Your task to perform on an android device: change the upload size in google photos Image 0: 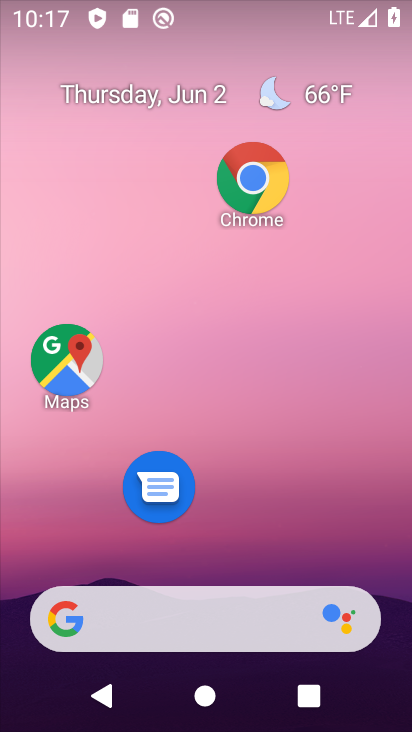
Step 0: drag from (260, 729) to (234, 171)
Your task to perform on an android device: change the upload size in google photos Image 1: 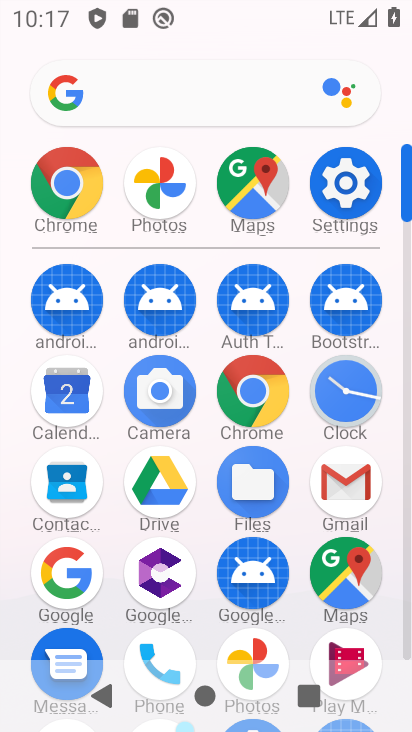
Step 1: click (267, 641)
Your task to perform on an android device: change the upload size in google photos Image 2: 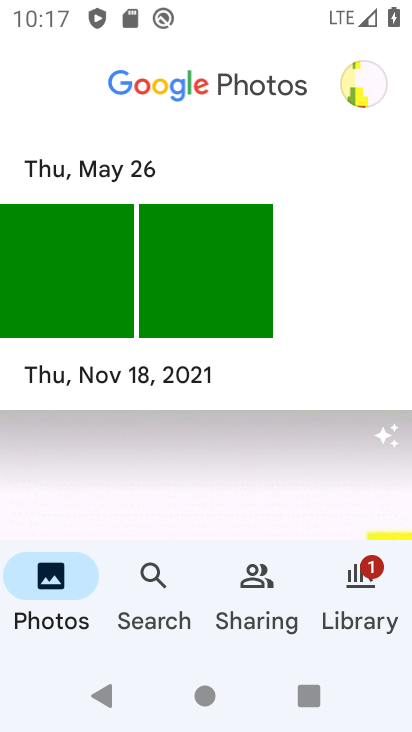
Step 2: click (357, 89)
Your task to perform on an android device: change the upload size in google photos Image 3: 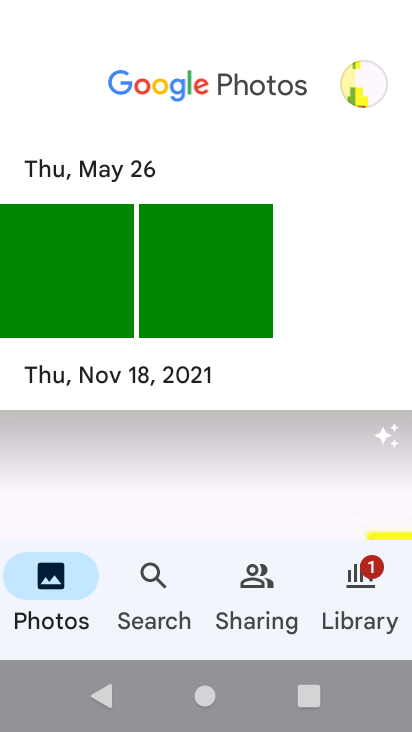
Step 3: click (360, 78)
Your task to perform on an android device: change the upload size in google photos Image 4: 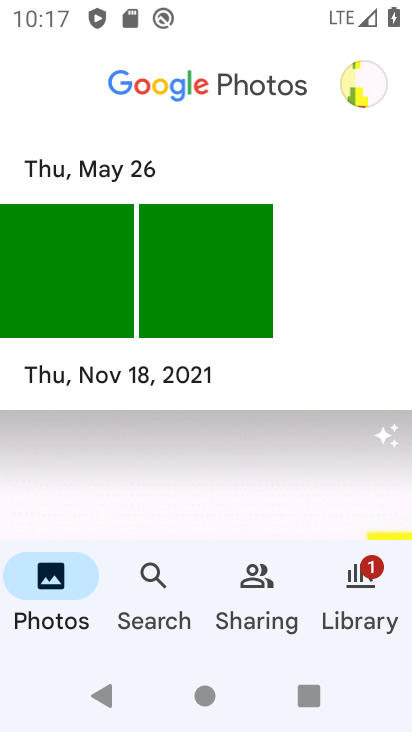
Step 4: click (360, 84)
Your task to perform on an android device: change the upload size in google photos Image 5: 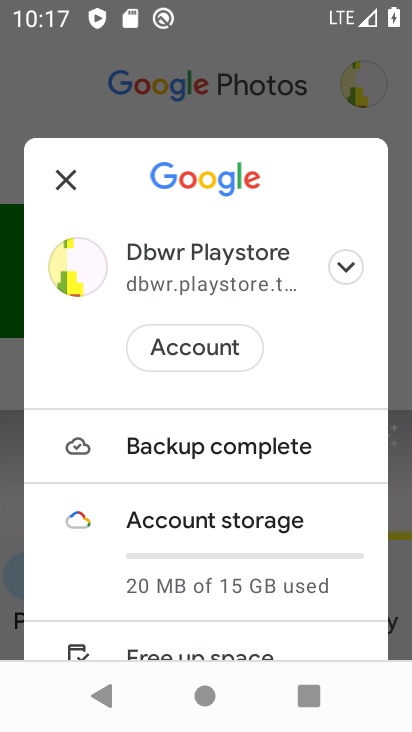
Step 5: drag from (238, 646) to (241, 268)
Your task to perform on an android device: change the upload size in google photos Image 6: 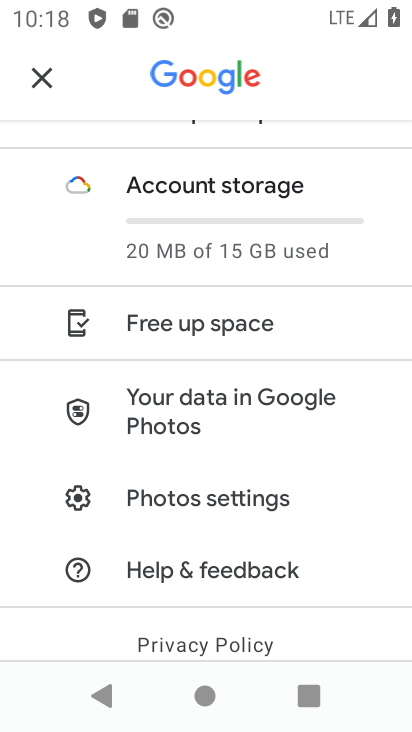
Step 6: click (198, 498)
Your task to perform on an android device: change the upload size in google photos Image 7: 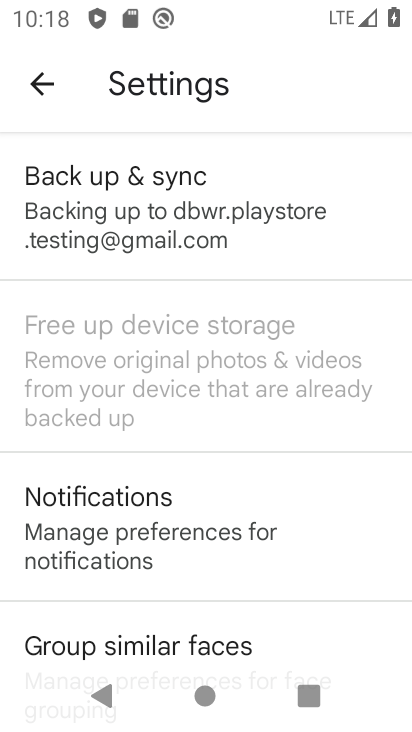
Step 7: click (132, 211)
Your task to perform on an android device: change the upload size in google photos Image 8: 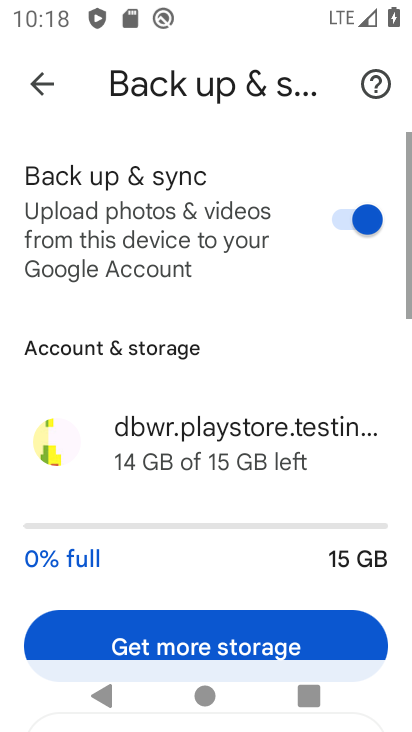
Step 8: drag from (166, 596) to (169, 179)
Your task to perform on an android device: change the upload size in google photos Image 9: 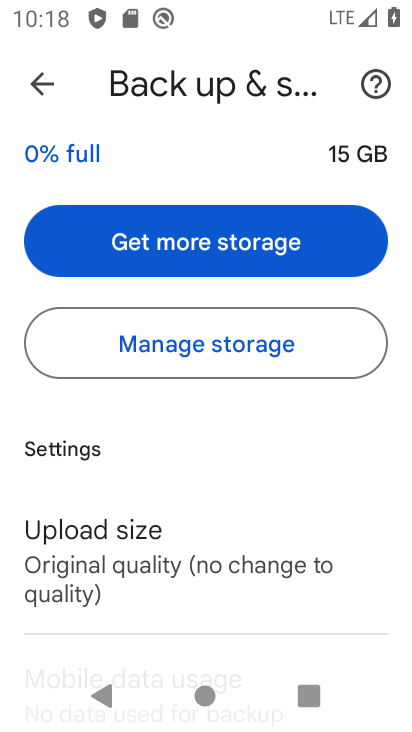
Step 9: drag from (126, 631) to (127, 477)
Your task to perform on an android device: change the upload size in google photos Image 10: 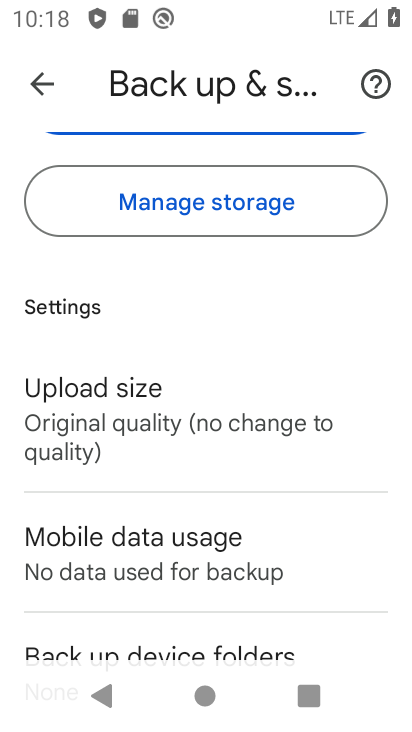
Step 10: click (105, 422)
Your task to perform on an android device: change the upload size in google photos Image 11: 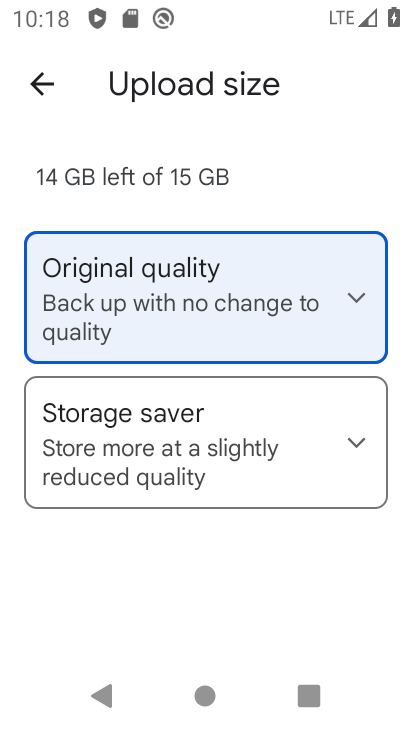
Step 11: click (371, 447)
Your task to perform on an android device: change the upload size in google photos Image 12: 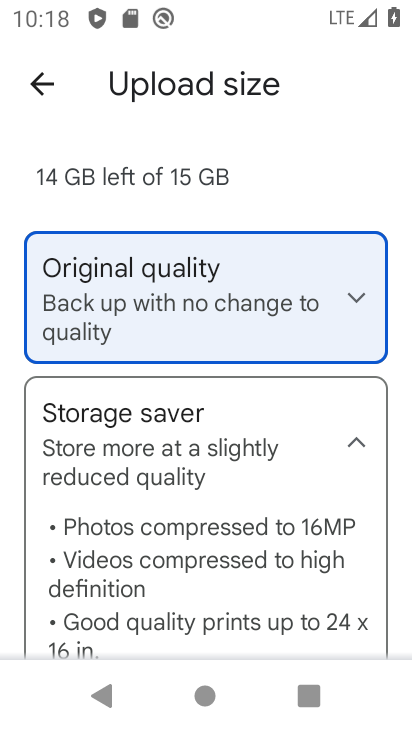
Step 12: drag from (209, 622) to (218, 397)
Your task to perform on an android device: change the upload size in google photos Image 13: 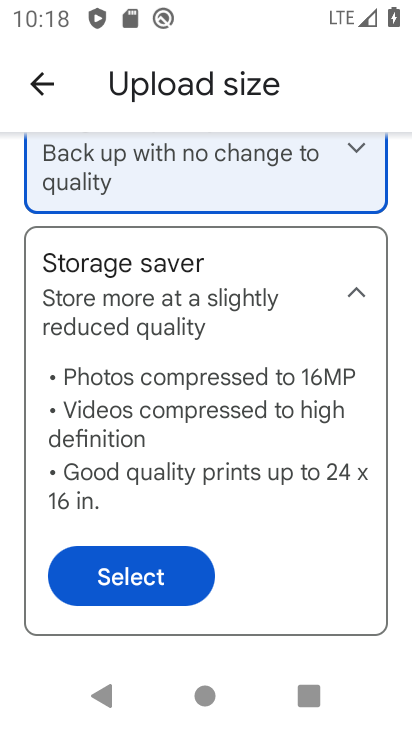
Step 13: click (150, 579)
Your task to perform on an android device: change the upload size in google photos Image 14: 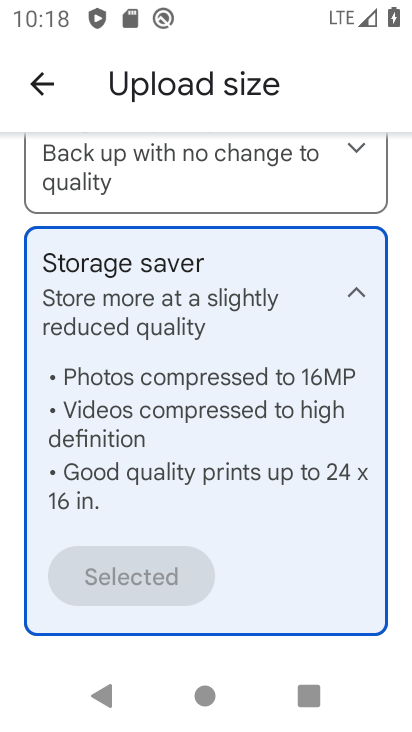
Step 14: task complete